Your task to perform on an android device: open app "Google Maps" Image 0: 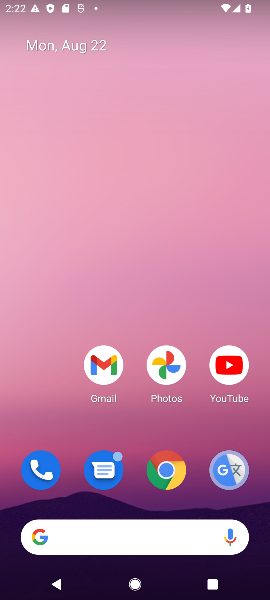
Step 0: click (127, 239)
Your task to perform on an android device: open app "Google Maps" Image 1: 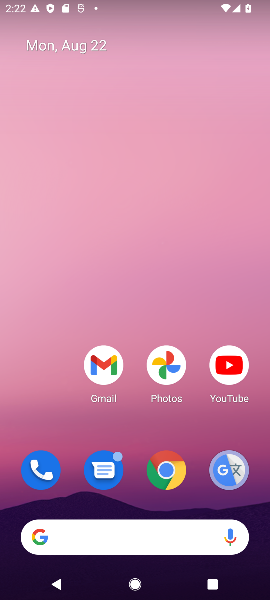
Step 1: drag from (135, 477) to (163, 201)
Your task to perform on an android device: open app "Google Maps" Image 2: 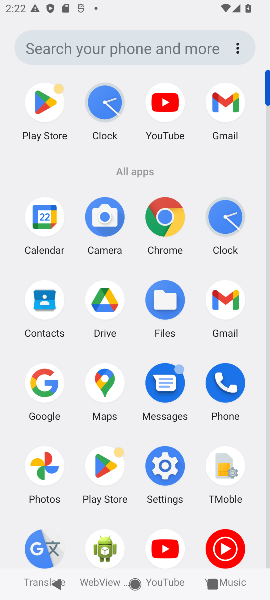
Step 2: click (103, 470)
Your task to perform on an android device: open app "Google Maps" Image 3: 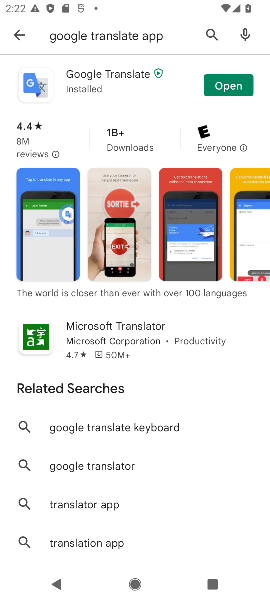
Step 3: click (214, 34)
Your task to perform on an android device: open app "Google Maps" Image 4: 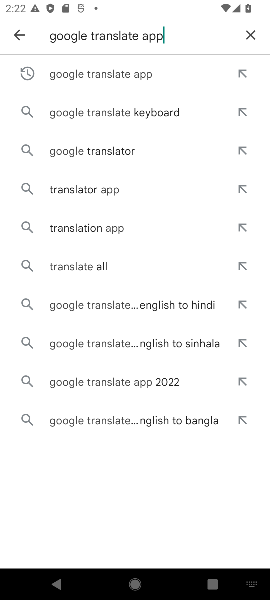
Step 4: click (254, 31)
Your task to perform on an android device: open app "Google Maps" Image 5: 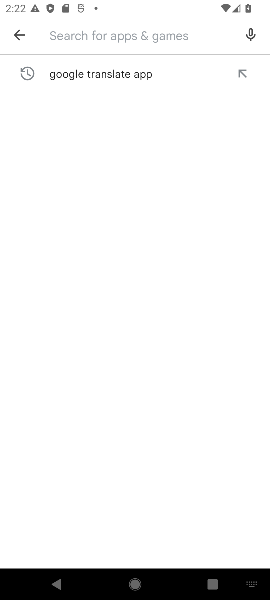
Step 5: click (83, 27)
Your task to perform on an android device: open app "Google Maps" Image 6: 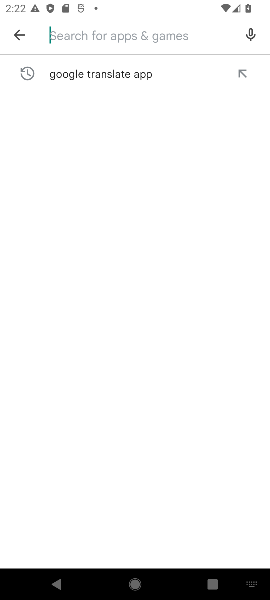
Step 6: type "Google Maps "
Your task to perform on an android device: open app "Google Maps" Image 7: 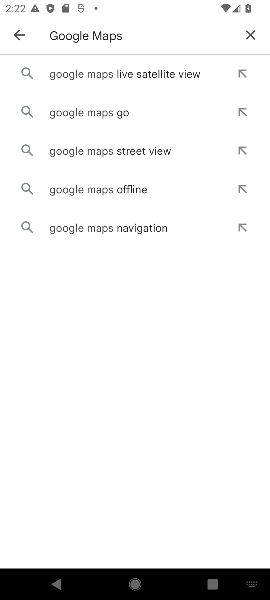
Step 7: click (111, 110)
Your task to perform on an android device: open app "Google Maps" Image 8: 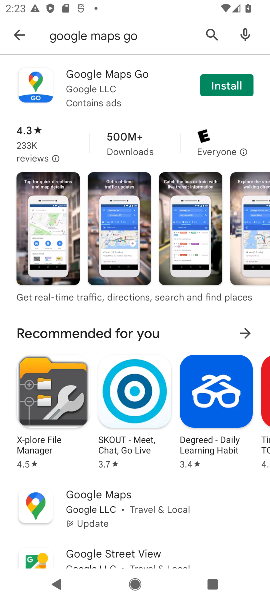
Step 8: click (221, 81)
Your task to perform on an android device: open app "Google Maps" Image 9: 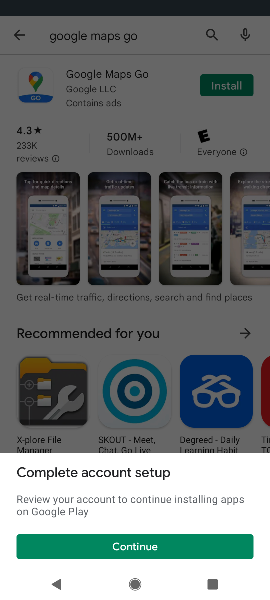
Step 9: task complete